Your task to perform on an android device: turn off notifications in google photos Image 0: 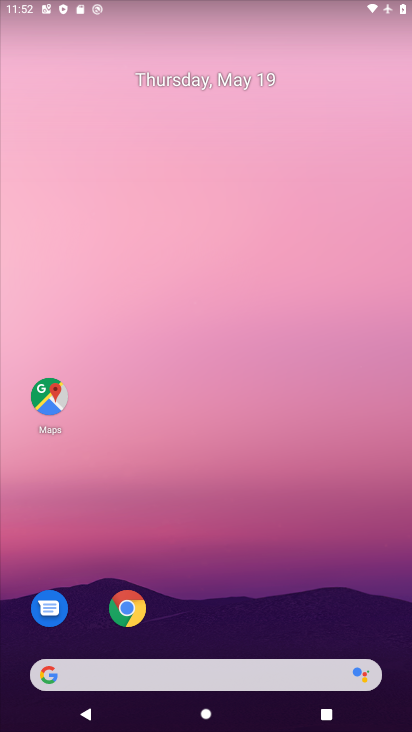
Step 0: drag from (351, 621) to (363, 133)
Your task to perform on an android device: turn off notifications in google photos Image 1: 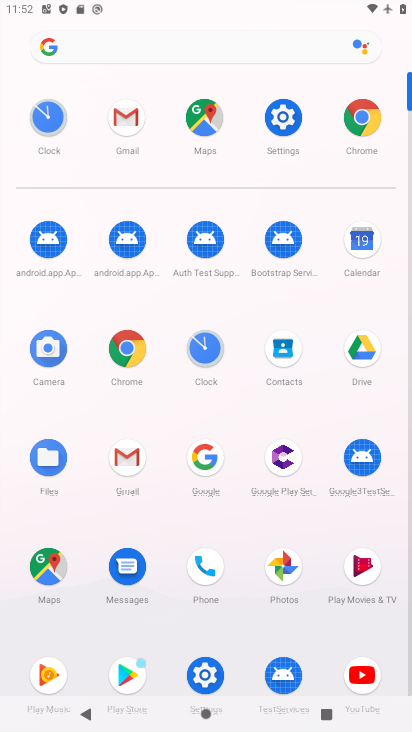
Step 1: click (273, 567)
Your task to perform on an android device: turn off notifications in google photos Image 2: 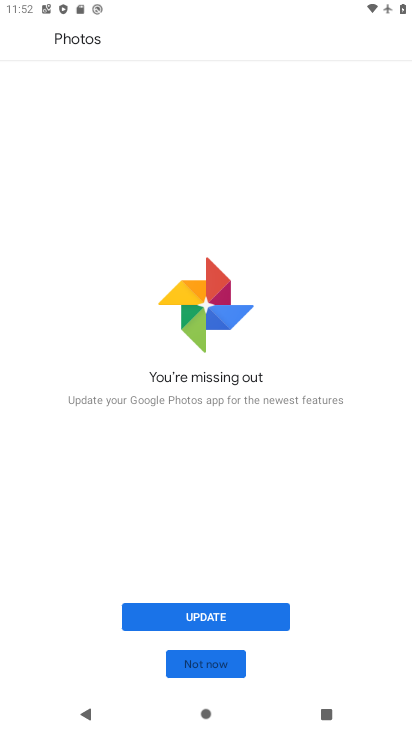
Step 2: click (265, 612)
Your task to perform on an android device: turn off notifications in google photos Image 3: 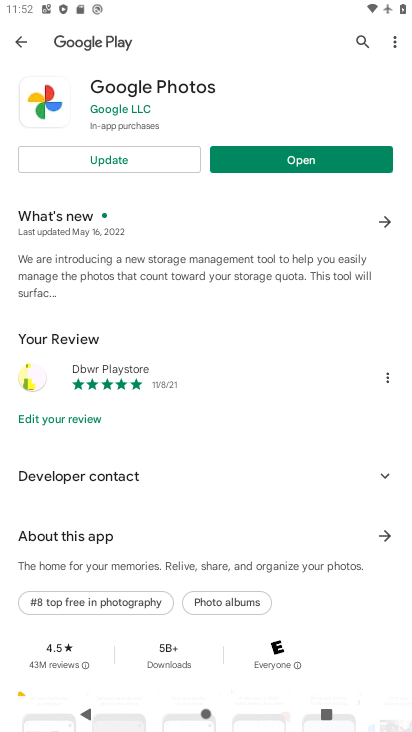
Step 3: click (133, 170)
Your task to perform on an android device: turn off notifications in google photos Image 4: 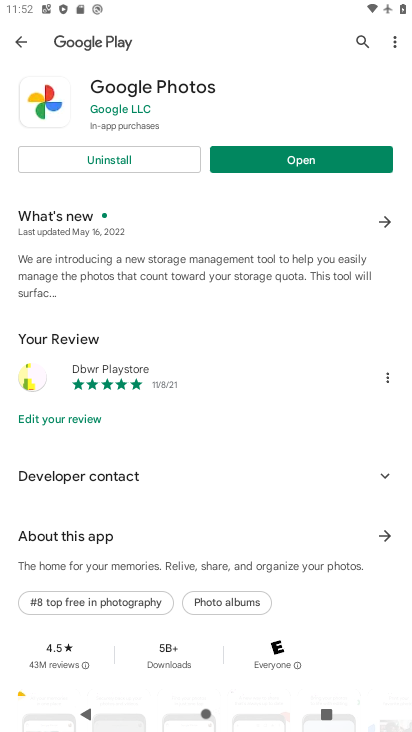
Step 4: click (318, 163)
Your task to perform on an android device: turn off notifications in google photos Image 5: 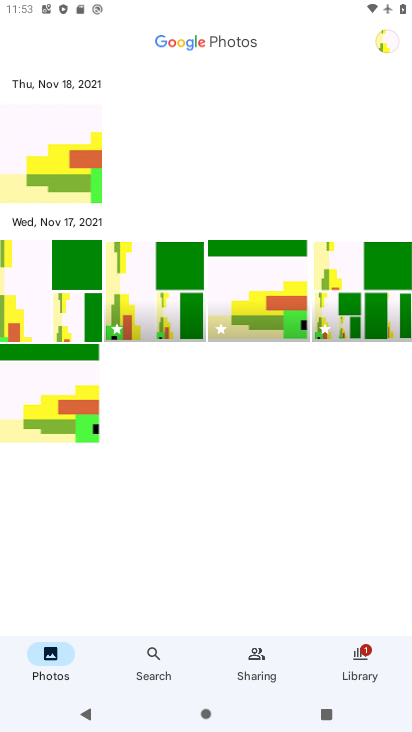
Step 5: click (375, 47)
Your task to perform on an android device: turn off notifications in google photos Image 6: 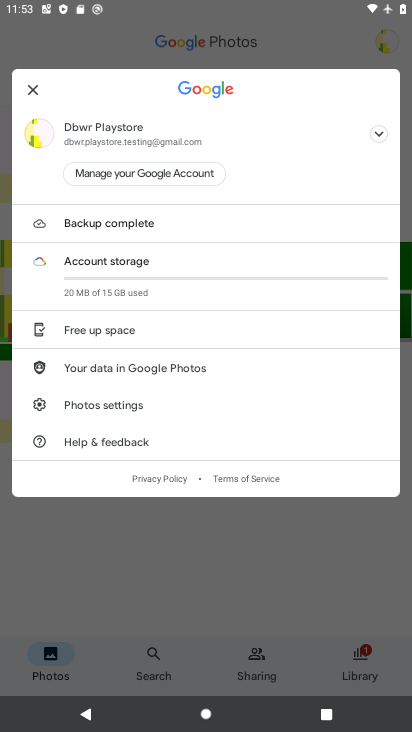
Step 6: click (127, 411)
Your task to perform on an android device: turn off notifications in google photos Image 7: 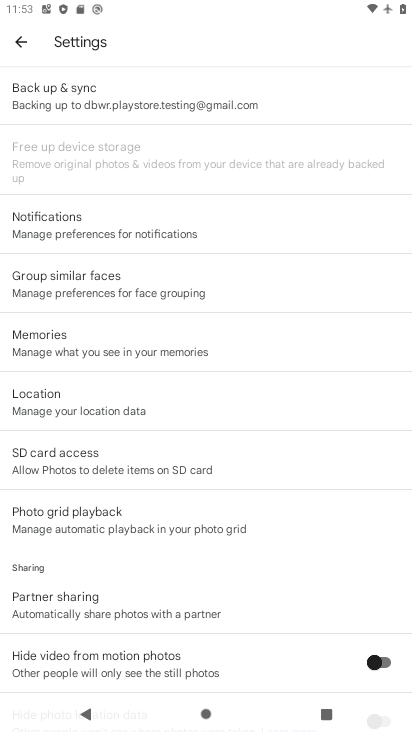
Step 7: drag from (342, 628) to (351, 345)
Your task to perform on an android device: turn off notifications in google photos Image 8: 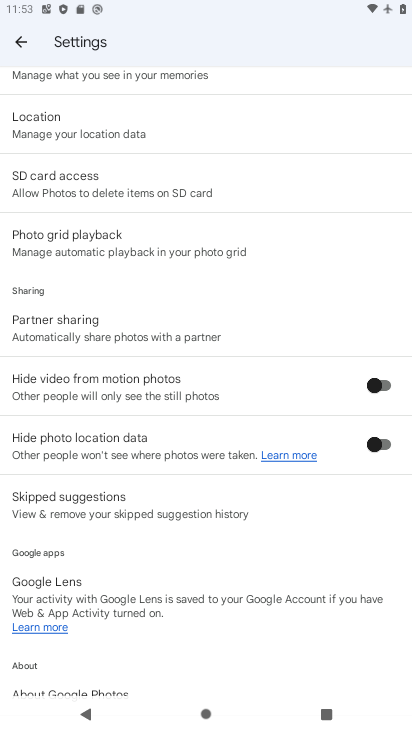
Step 8: drag from (282, 641) to (290, 430)
Your task to perform on an android device: turn off notifications in google photos Image 9: 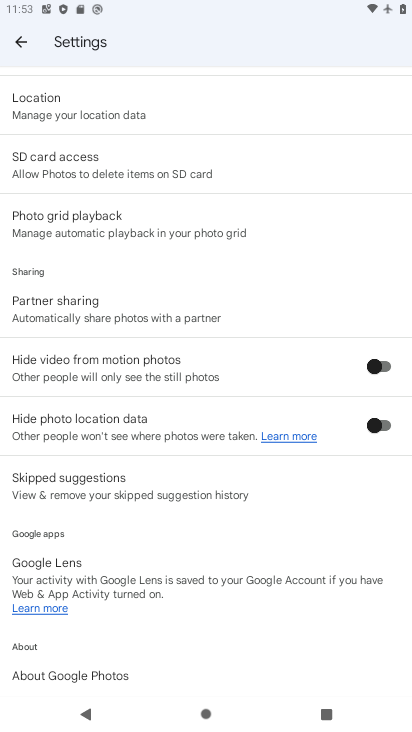
Step 9: drag from (244, 641) to (247, 428)
Your task to perform on an android device: turn off notifications in google photos Image 10: 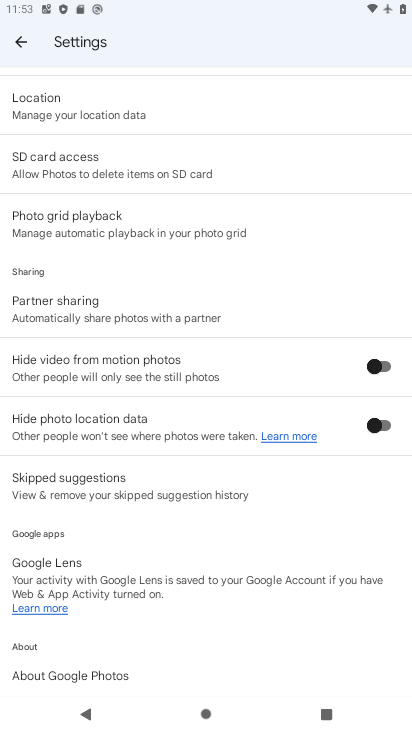
Step 10: drag from (268, 232) to (268, 497)
Your task to perform on an android device: turn off notifications in google photos Image 11: 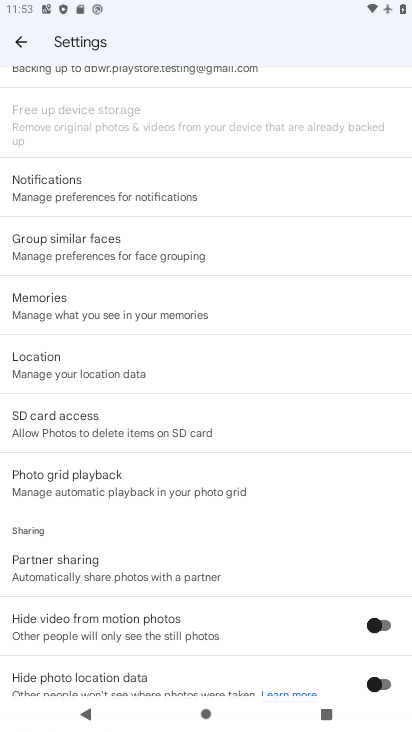
Step 11: drag from (259, 215) to (256, 469)
Your task to perform on an android device: turn off notifications in google photos Image 12: 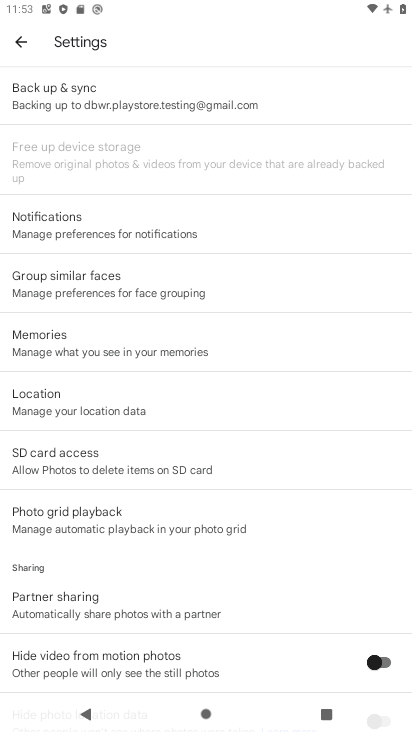
Step 12: click (135, 243)
Your task to perform on an android device: turn off notifications in google photos Image 13: 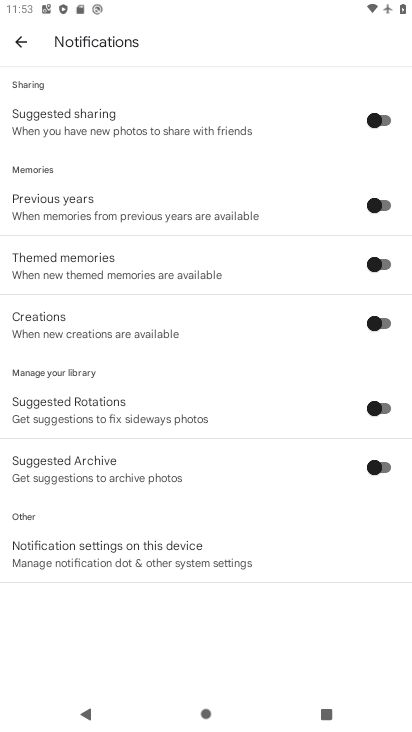
Step 13: click (243, 573)
Your task to perform on an android device: turn off notifications in google photos Image 14: 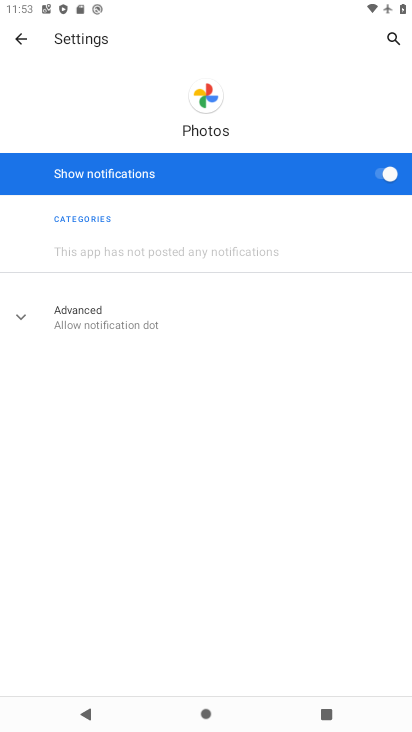
Step 14: click (391, 168)
Your task to perform on an android device: turn off notifications in google photos Image 15: 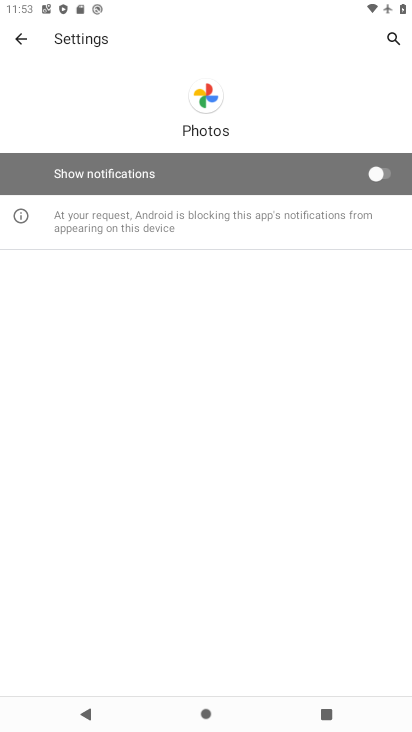
Step 15: task complete